Your task to perform on an android device: Clear the cart on walmart. Add razer huntsman to the cart on walmart Image 0: 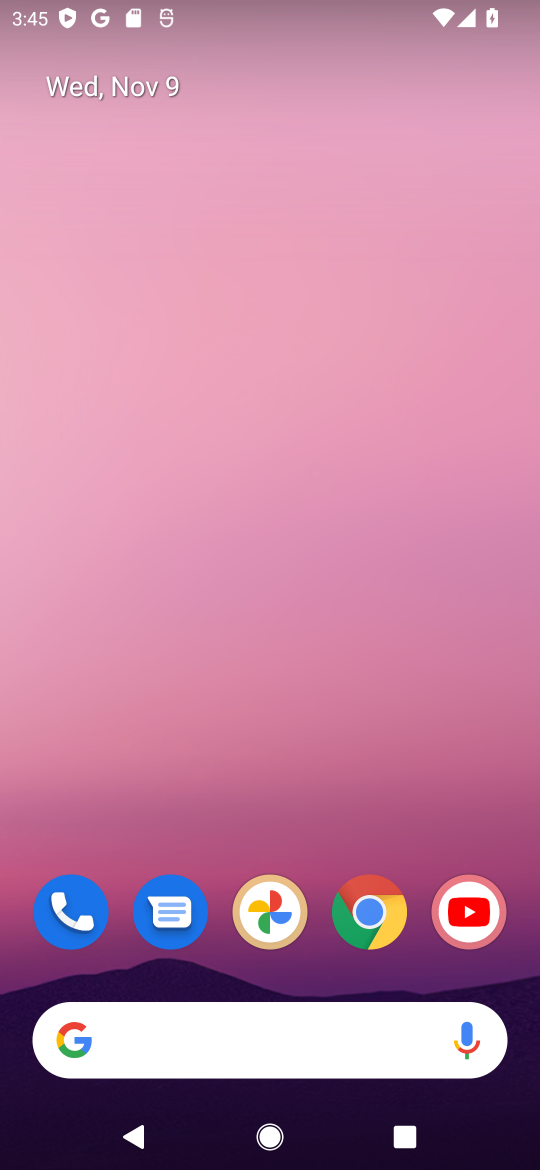
Step 0: click (368, 916)
Your task to perform on an android device: Clear the cart on walmart. Add razer huntsman to the cart on walmart Image 1: 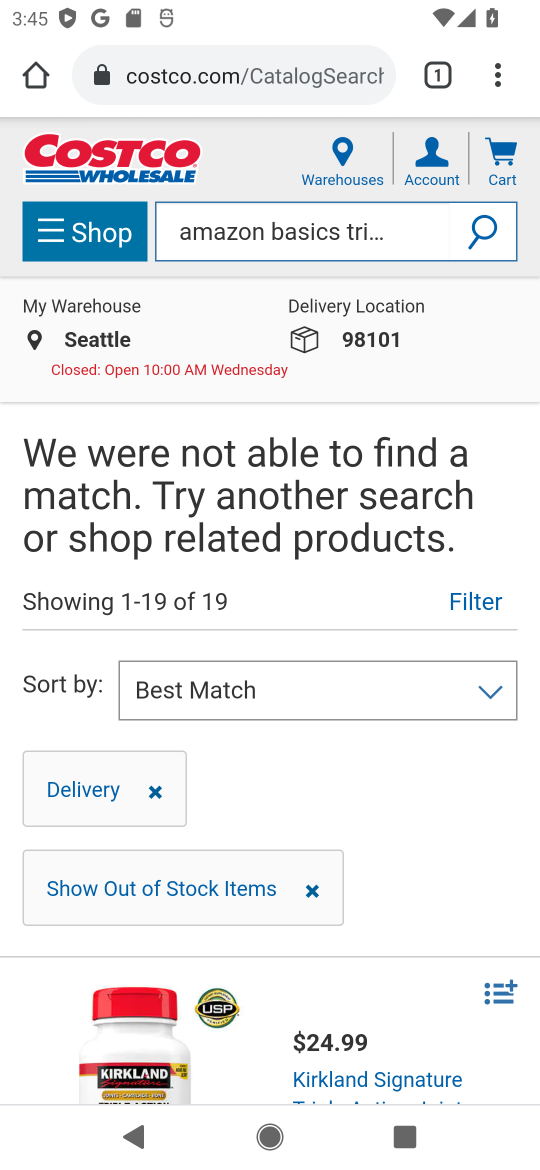
Step 1: click (304, 86)
Your task to perform on an android device: Clear the cart on walmart. Add razer huntsman to the cart on walmart Image 2: 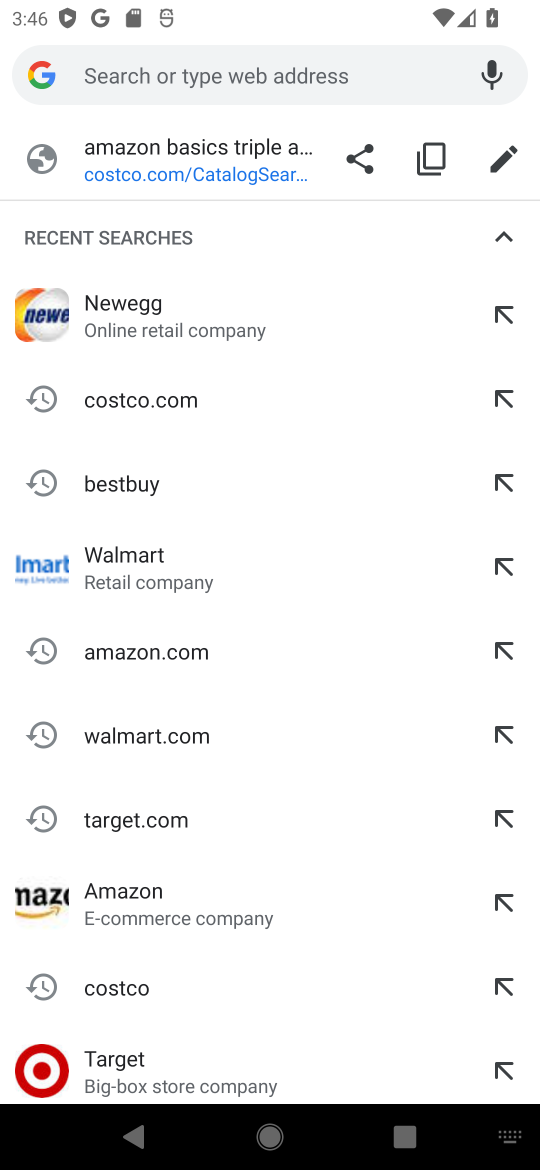
Step 2: type "walmart"
Your task to perform on an android device: Clear the cart on walmart. Add razer huntsman to the cart on walmart Image 3: 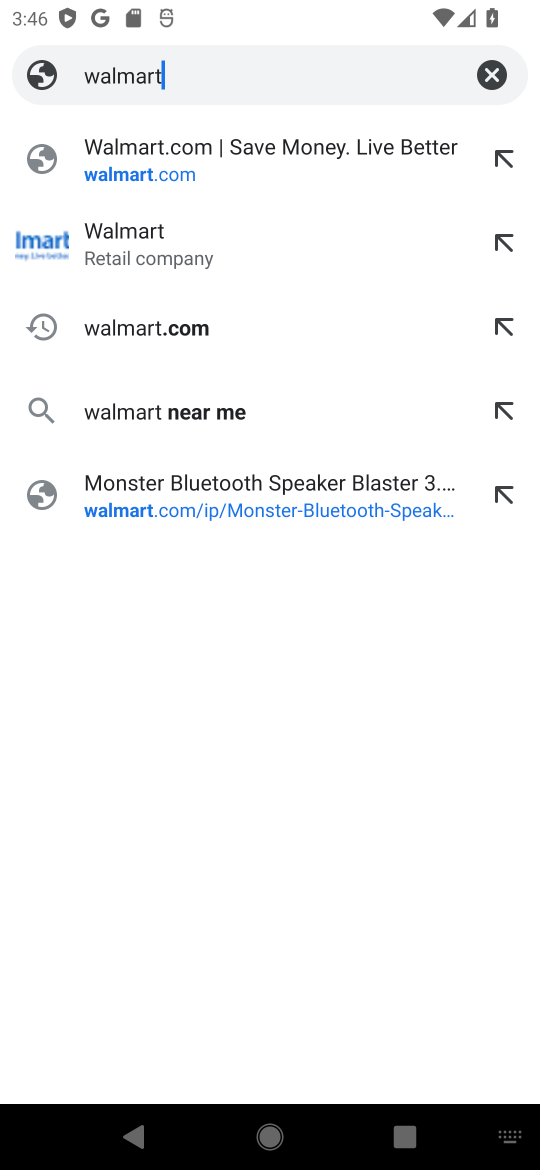
Step 3: click (142, 228)
Your task to perform on an android device: Clear the cart on walmart. Add razer huntsman to the cart on walmart Image 4: 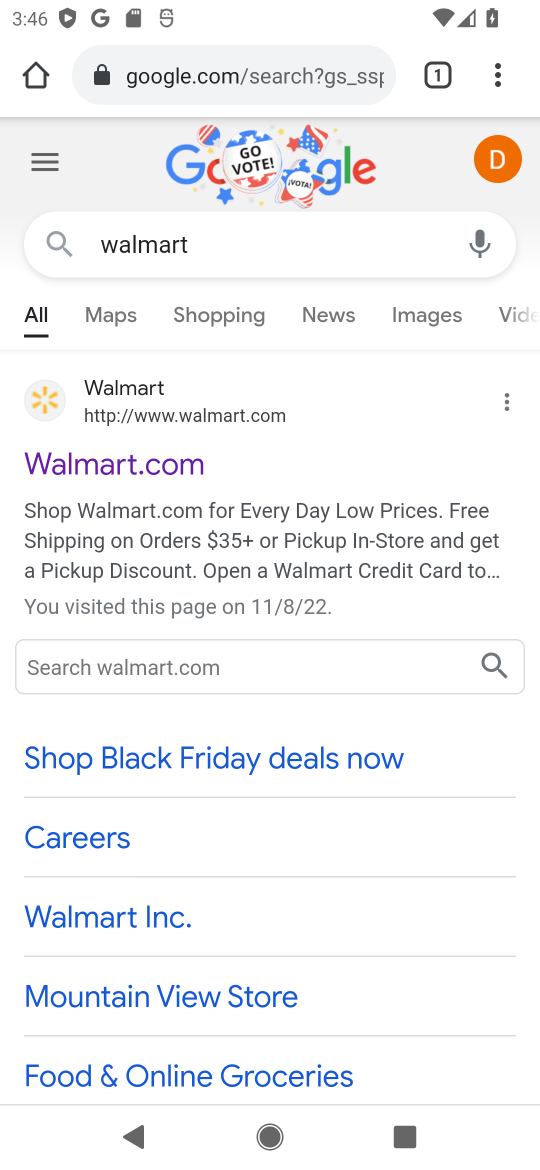
Step 4: click (171, 450)
Your task to perform on an android device: Clear the cart on walmart. Add razer huntsman to the cart on walmart Image 5: 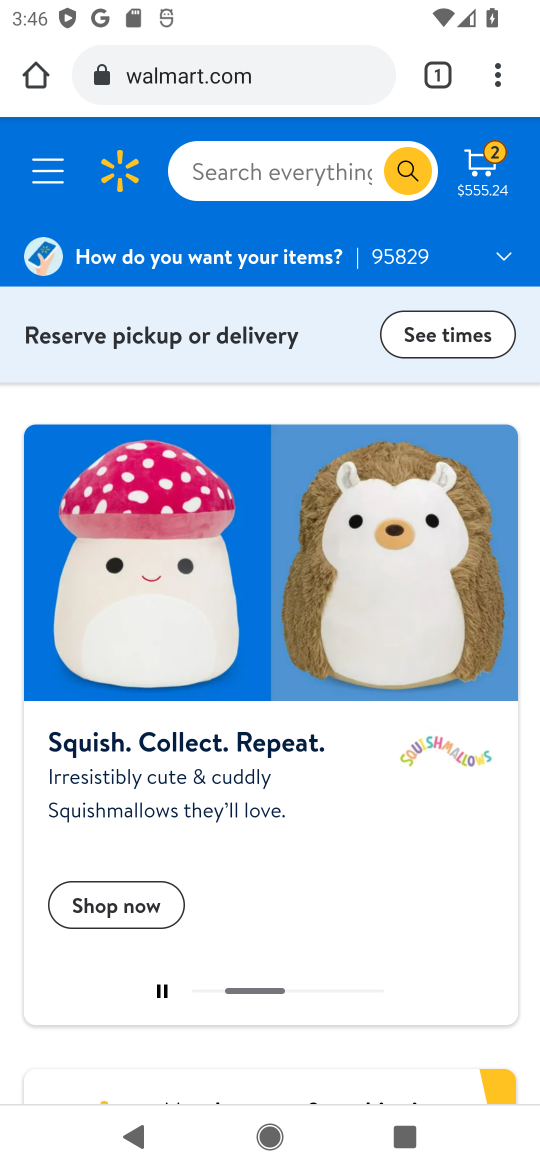
Step 5: click (483, 162)
Your task to perform on an android device: Clear the cart on walmart. Add razer huntsman to the cart on walmart Image 6: 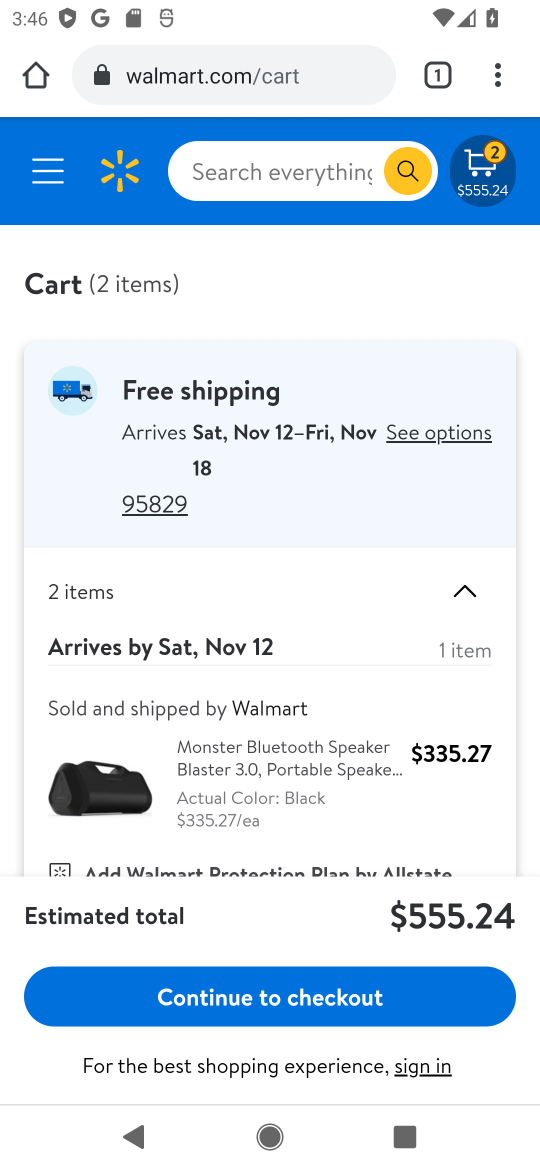
Step 6: drag from (317, 696) to (336, 391)
Your task to perform on an android device: Clear the cart on walmart. Add razer huntsman to the cart on walmart Image 7: 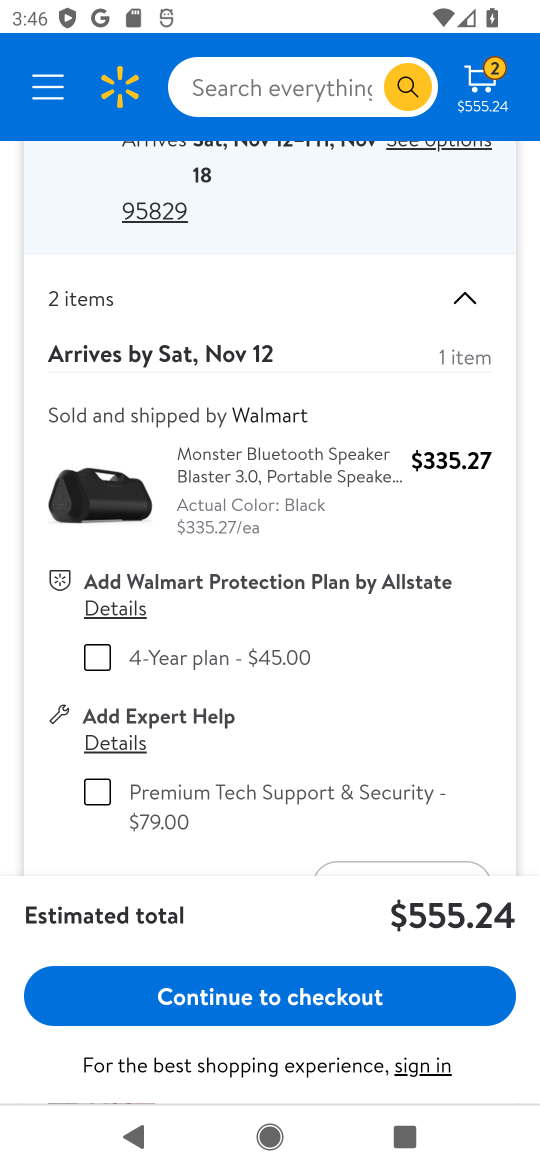
Step 7: drag from (197, 747) to (213, 302)
Your task to perform on an android device: Clear the cart on walmart. Add razer huntsman to the cart on walmart Image 8: 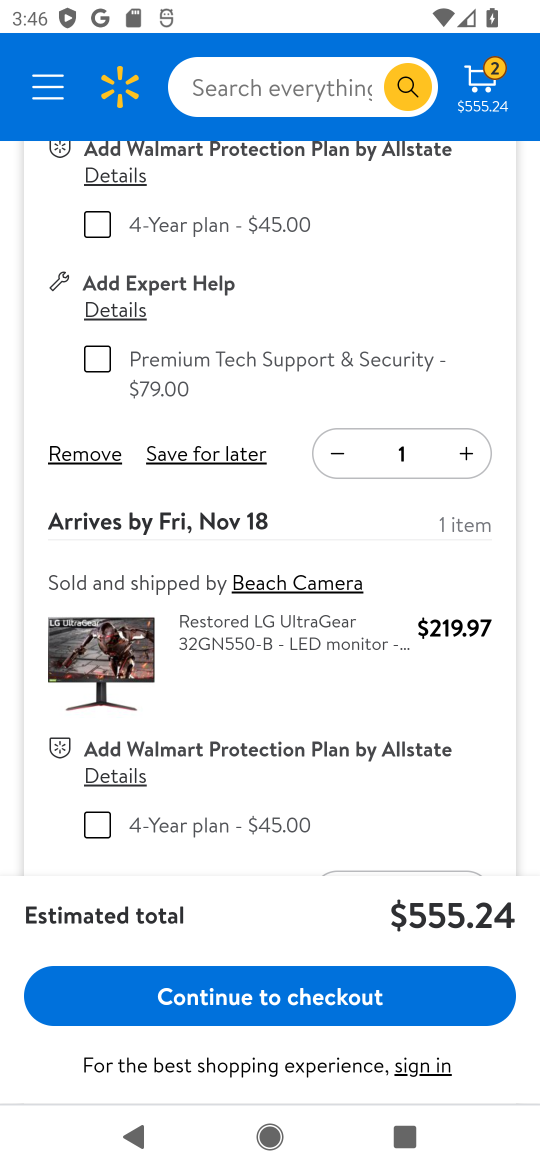
Step 8: click (90, 450)
Your task to perform on an android device: Clear the cart on walmart. Add razer huntsman to the cart on walmart Image 9: 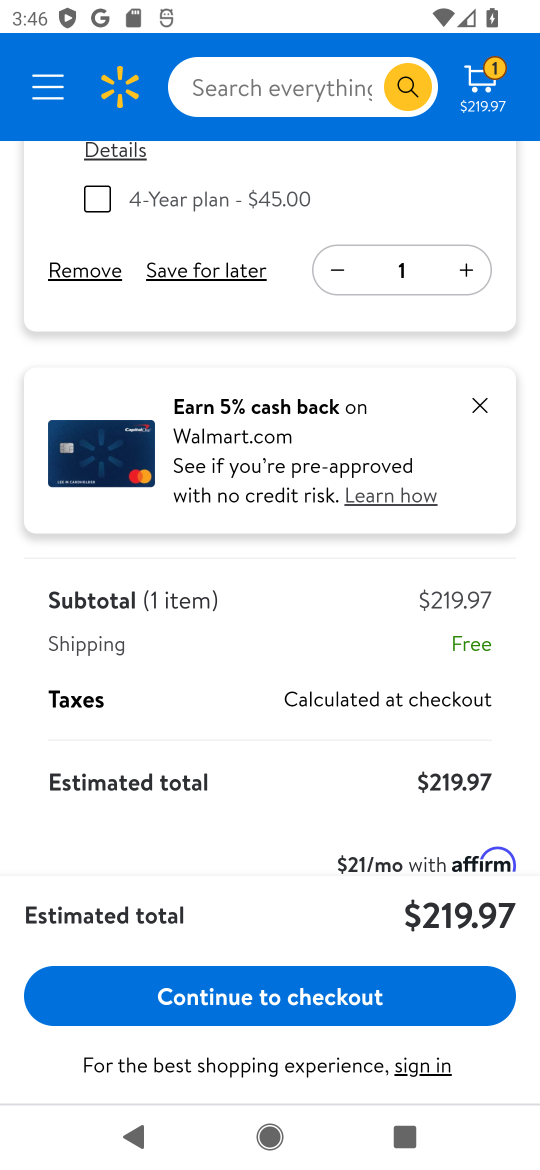
Step 9: click (77, 279)
Your task to perform on an android device: Clear the cart on walmart. Add razer huntsman to the cart on walmart Image 10: 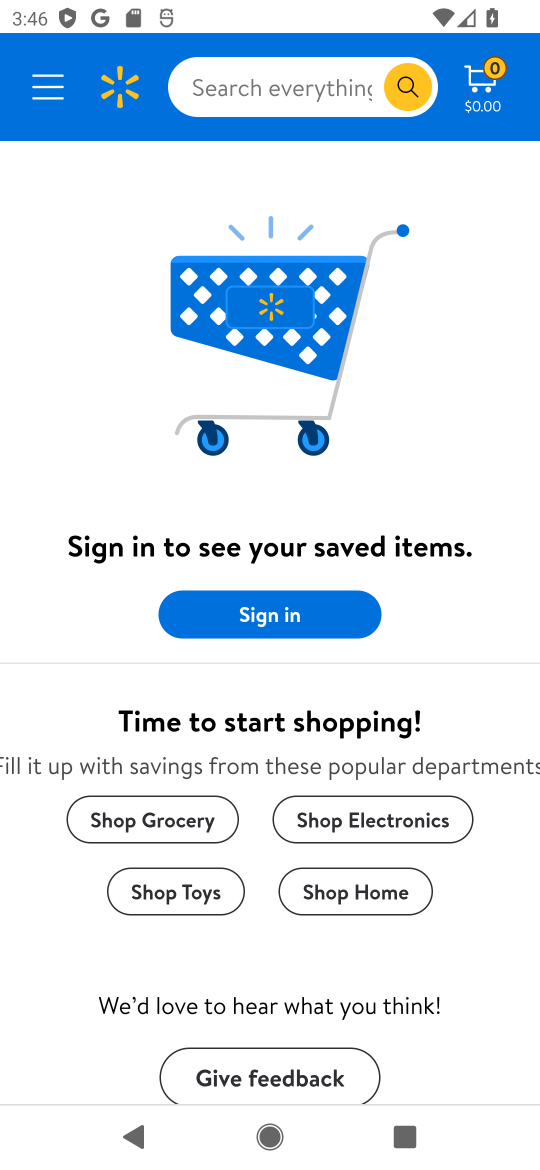
Step 10: click (284, 115)
Your task to perform on an android device: Clear the cart on walmart. Add razer huntsman to the cart on walmart Image 11: 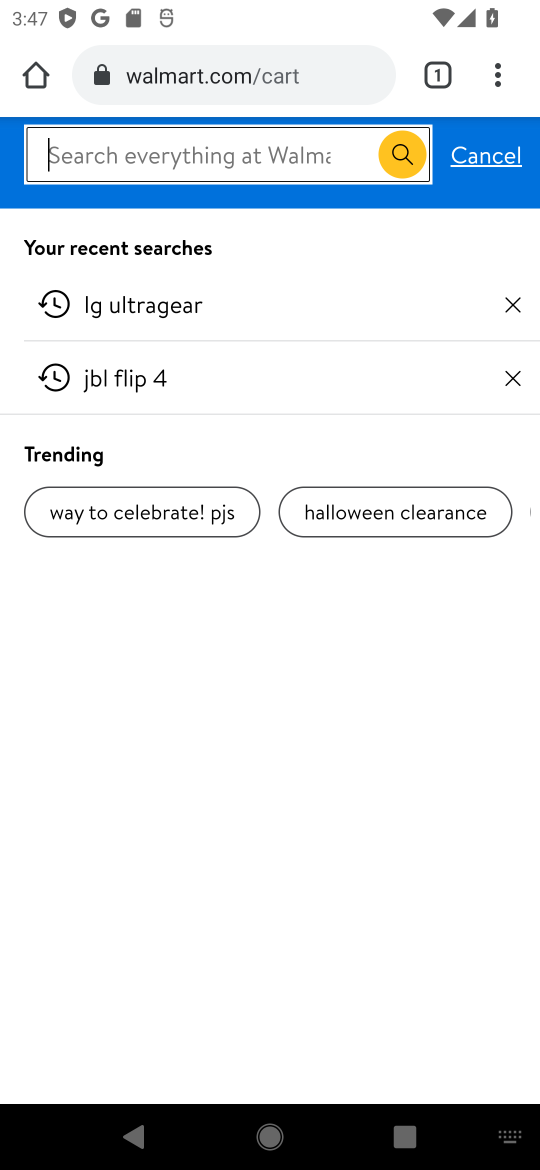
Step 11: type "razer huntsman"
Your task to perform on an android device: Clear the cart on walmart. Add razer huntsman to the cart on walmart Image 12: 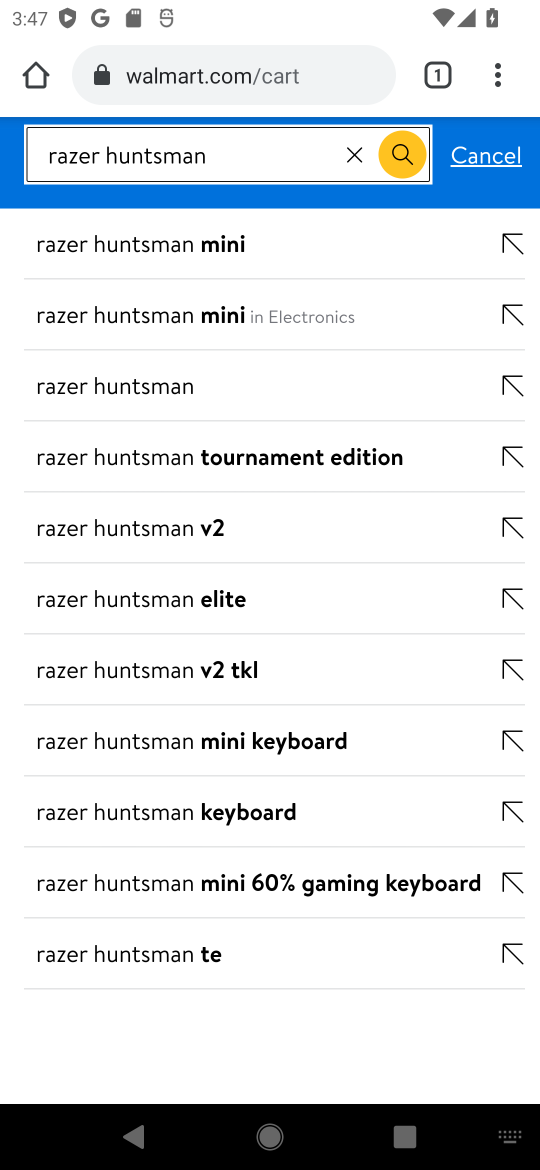
Step 12: click (151, 393)
Your task to perform on an android device: Clear the cart on walmart. Add razer huntsman to the cart on walmart Image 13: 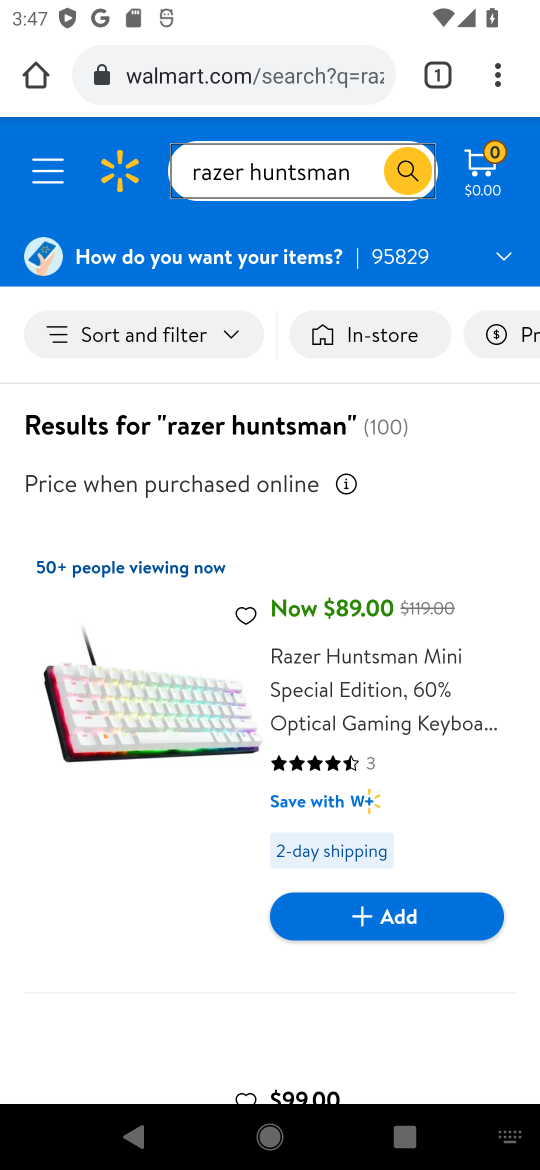
Step 13: click (369, 916)
Your task to perform on an android device: Clear the cart on walmart. Add razer huntsman to the cart on walmart Image 14: 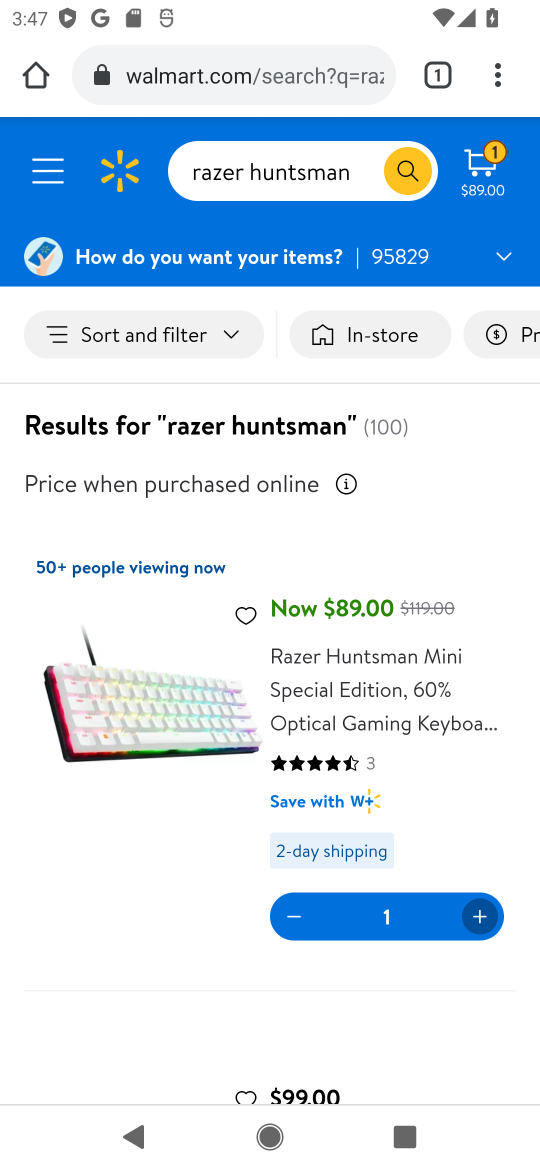
Step 14: click (478, 171)
Your task to perform on an android device: Clear the cart on walmart. Add razer huntsman to the cart on walmart Image 15: 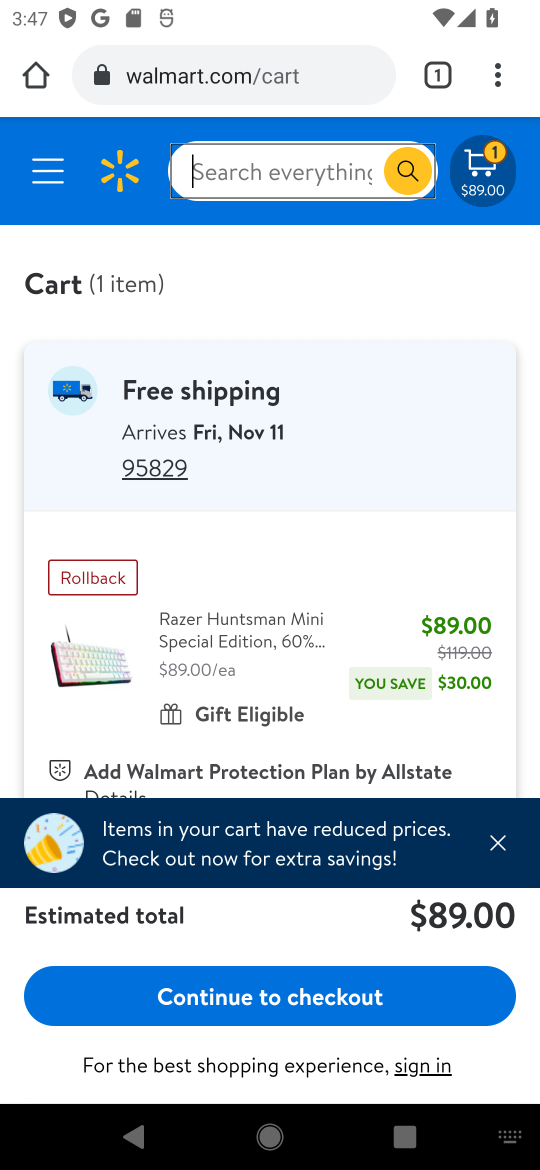
Step 15: task complete